Your task to perform on an android device: What's on my calendar today? Image 0: 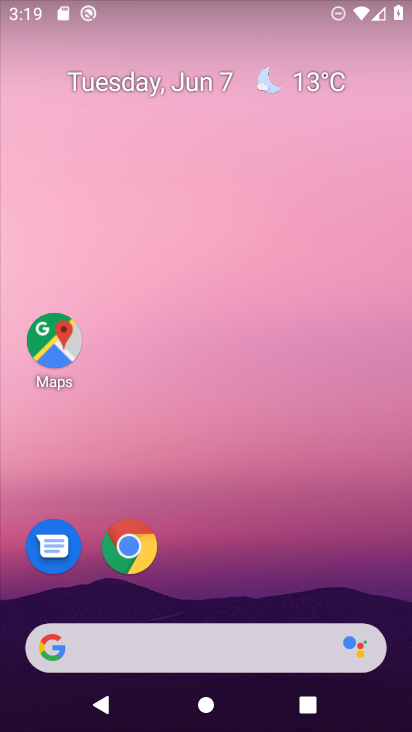
Step 0: drag from (35, 472) to (243, 102)
Your task to perform on an android device: What's on my calendar today? Image 1: 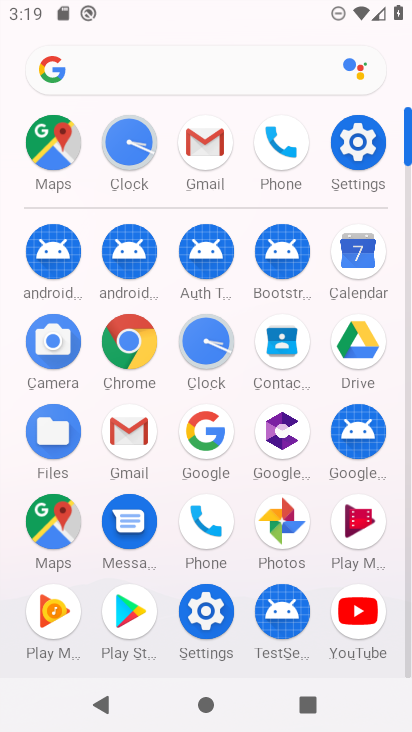
Step 1: click (337, 250)
Your task to perform on an android device: What's on my calendar today? Image 2: 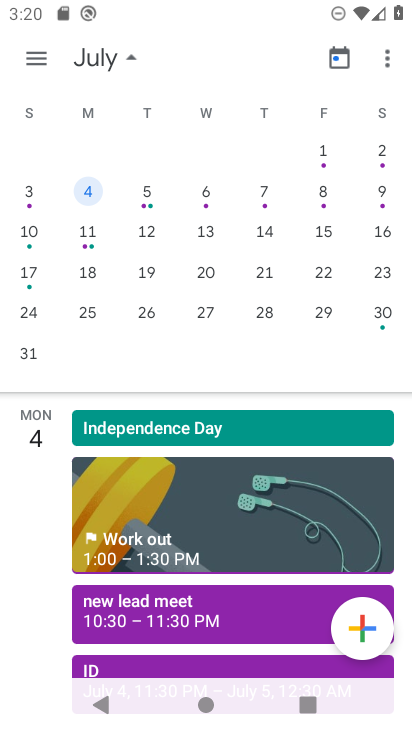
Step 2: drag from (14, 270) to (365, 290)
Your task to perform on an android device: What's on my calendar today? Image 3: 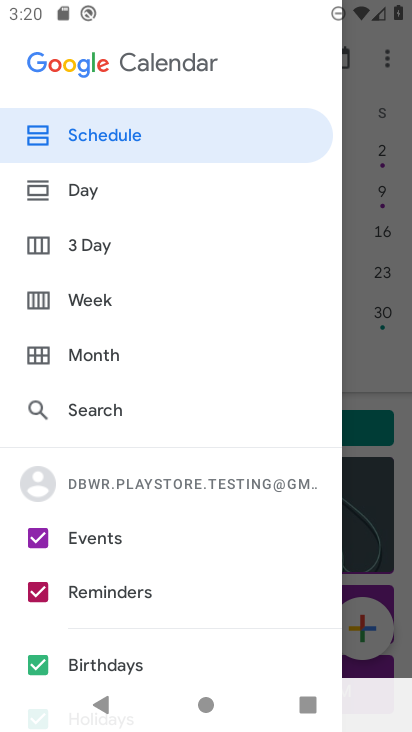
Step 3: click (388, 391)
Your task to perform on an android device: What's on my calendar today? Image 4: 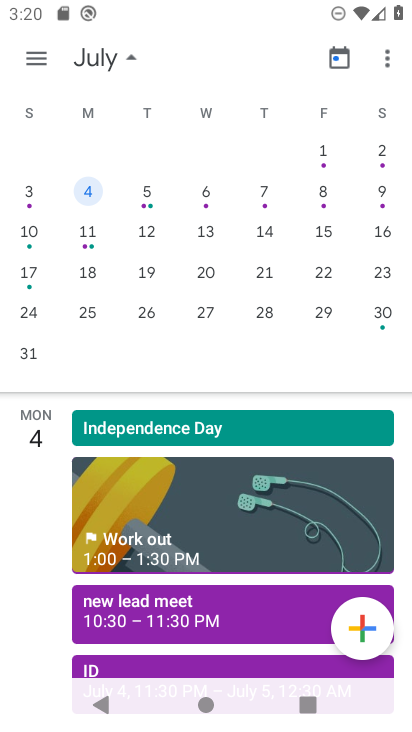
Step 4: task complete